Your task to perform on an android device: move a message to another label in the gmail app Image 0: 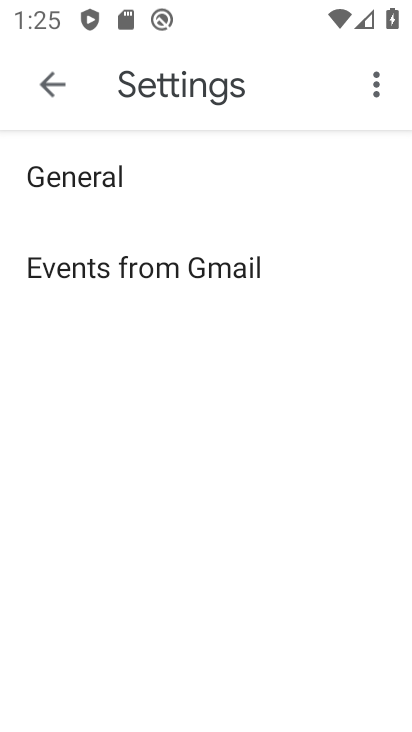
Step 0: press home button
Your task to perform on an android device: move a message to another label in the gmail app Image 1: 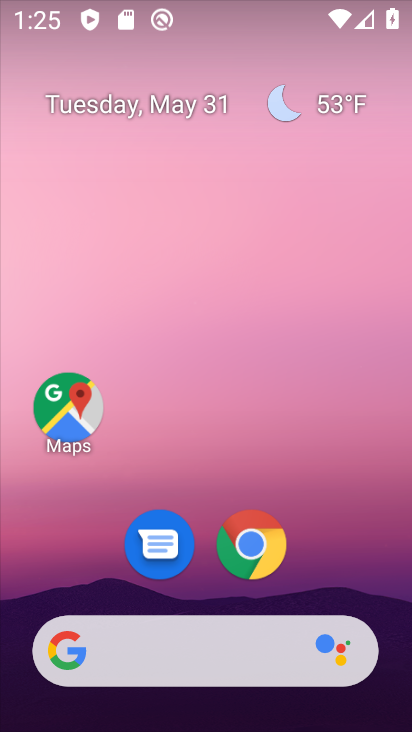
Step 1: drag from (326, 562) to (320, 29)
Your task to perform on an android device: move a message to another label in the gmail app Image 2: 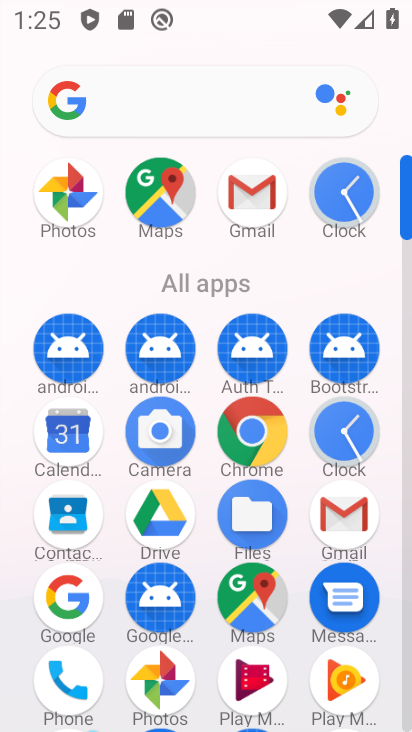
Step 2: click (335, 522)
Your task to perform on an android device: move a message to another label in the gmail app Image 3: 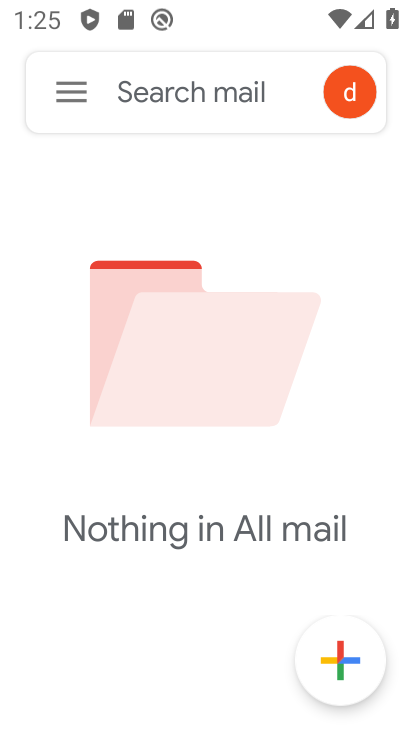
Step 3: task complete